Your task to perform on an android device: Go to battery settings Image 0: 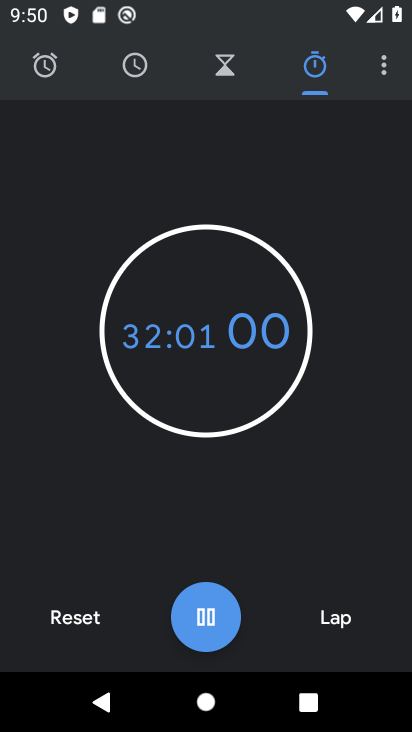
Step 0: press home button
Your task to perform on an android device: Go to battery settings Image 1: 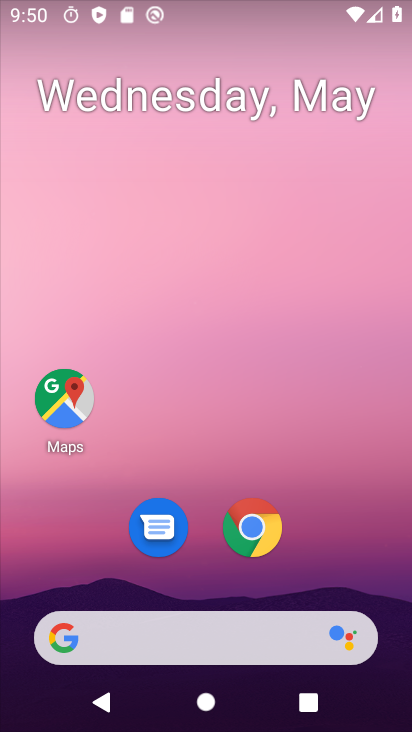
Step 1: drag from (322, 544) to (294, 170)
Your task to perform on an android device: Go to battery settings Image 2: 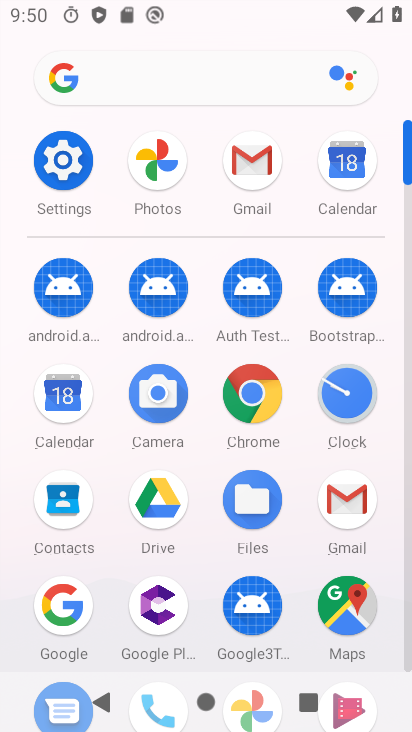
Step 2: click (54, 160)
Your task to perform on an android device: Go to battery settings Image 3: 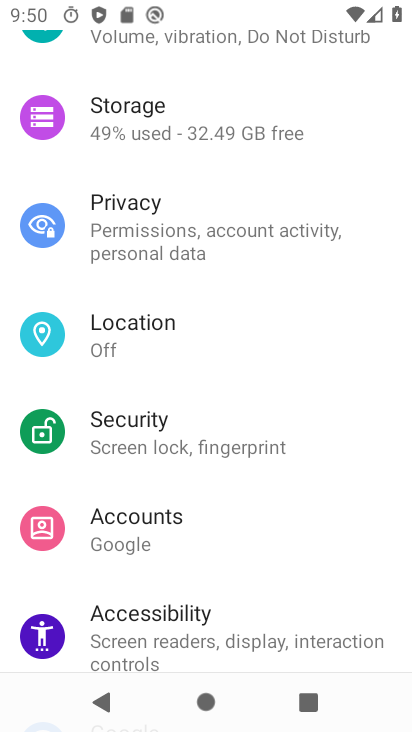
Step 3: drag from (240, 285) to (182, 627)
Your task to perform on an android device: Go to battery settings Image 4: 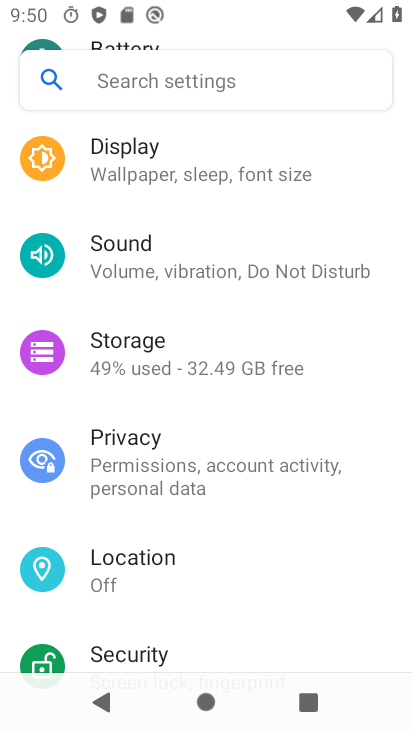
Step 4: drag from (259, 90) to (201, 615)
Your task to perform on an android device: Go to battery settings Image 5: 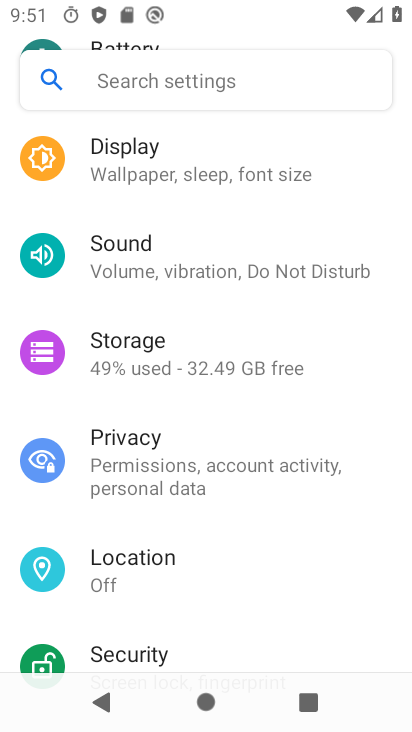
Step 5: drag from (344, 180) to (284, 630)
Your task to perform on an android device: Go to battery settings Image 6: 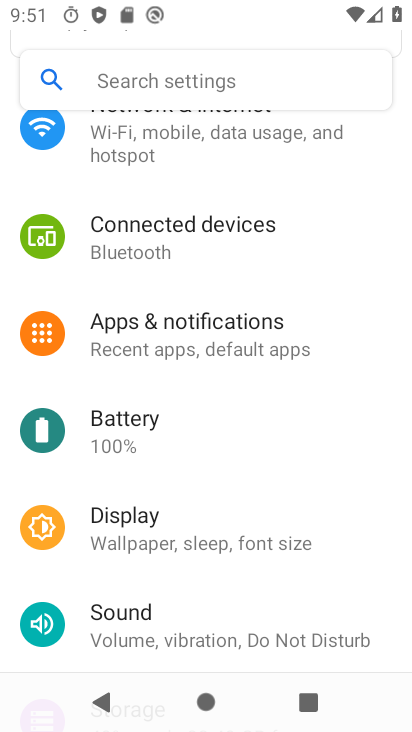
Step 6: click (99, 431)
Your task to perform on an android device: Go to battery settings Image 7: 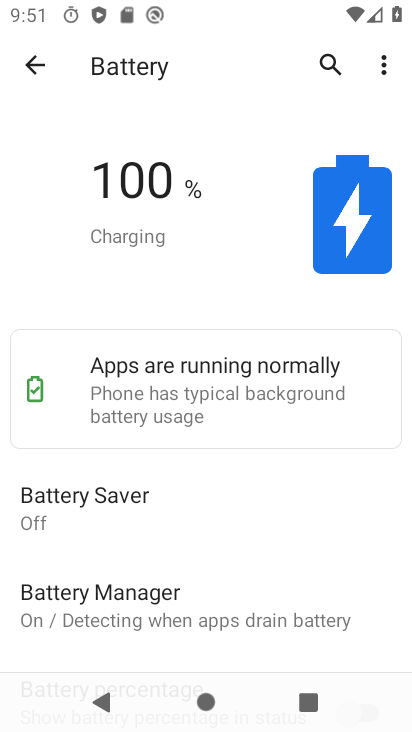
Step 7: task complete